Your task to perform on an android device: Search for pizza restaurants on Maps Image 0: 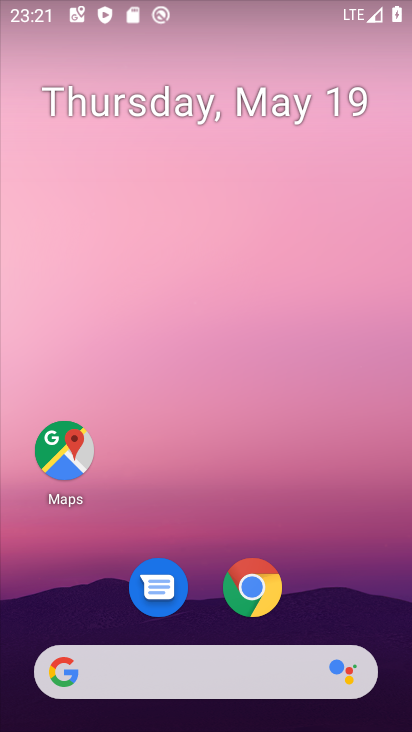
Step 0: drag from (251, 695) to (174, 273)
Your task to perform on an android device: Search for pizza restaurants on Maps Image 1: 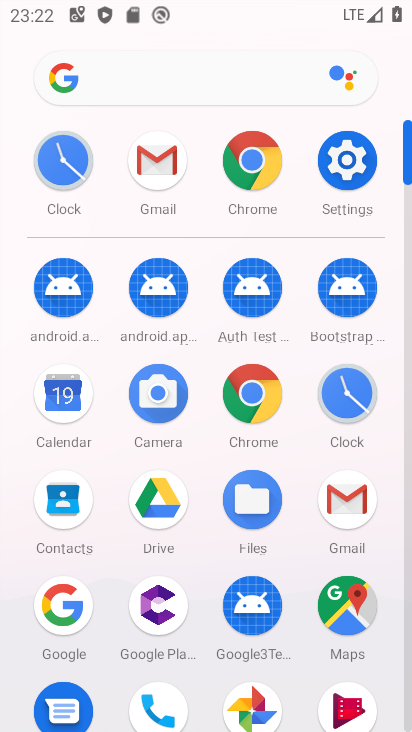
Step 1: click (353, 628)
Your task to perform on an android device: Search for pizza restaurants on Maps Image 2: 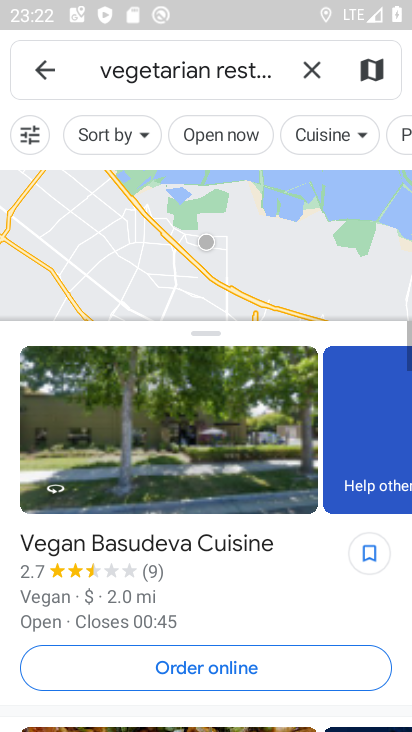
Step 2: click (314, 81)
Your task to perform on an android device: Search for pizza restaurants on Maps Image 3: 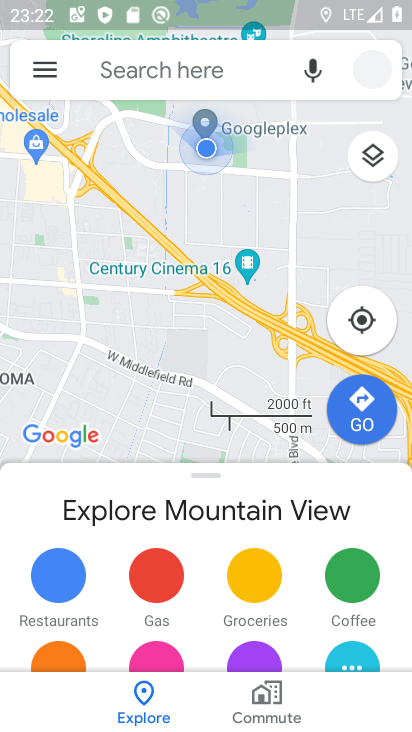
Step 3: click (170, 75)
Your task to perform on an android device: Search for pizza restaurants on Maps Image 4: 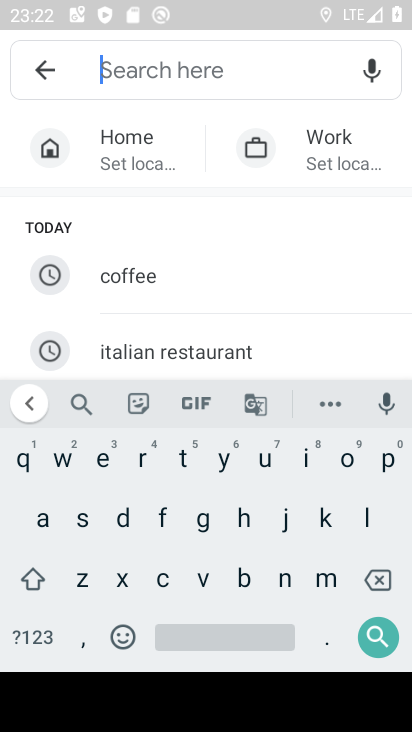
Step 4: click (382, 453)
Your task to perform on an android device: Search for pizza restaurants on Maps Image 5: 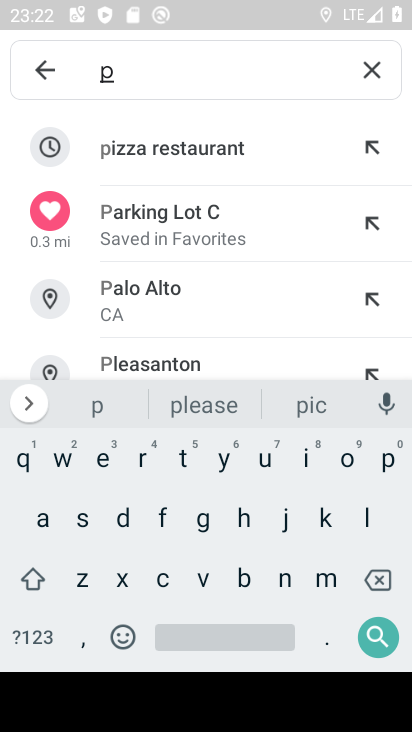
Step 5: click (203, 164)
Your task to perform on an android device: Search for pizza restaurants on Maps Image 6: 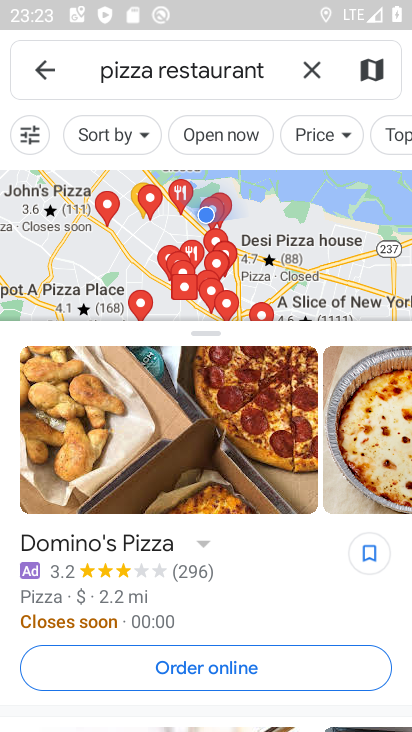
Step 6: task complete